Your task to perform on an android device: Go to Yahoo.com Image 0: 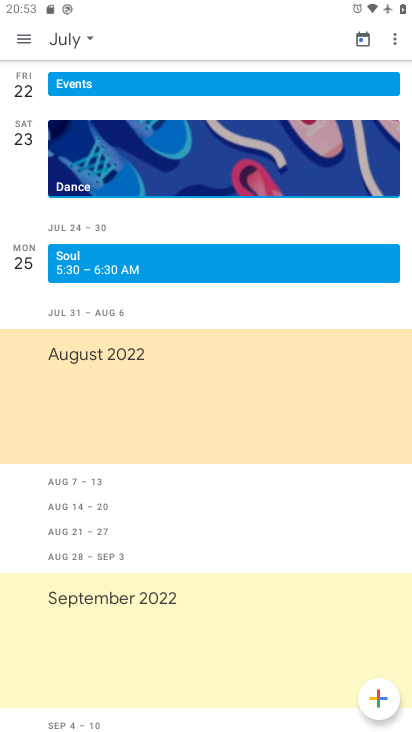
Step 0: press home button
Your task to perform on an android device: Go to Yahoo.com Image 1: 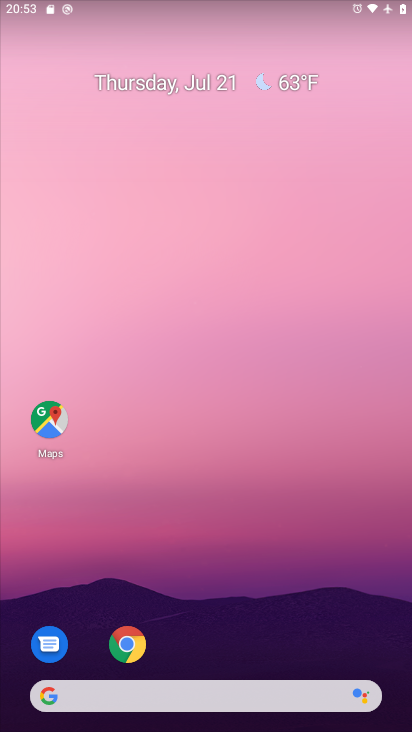
Step 1: click (128, 646)
Your task to perform on an android device: Go to Yahoo.com Image 2: 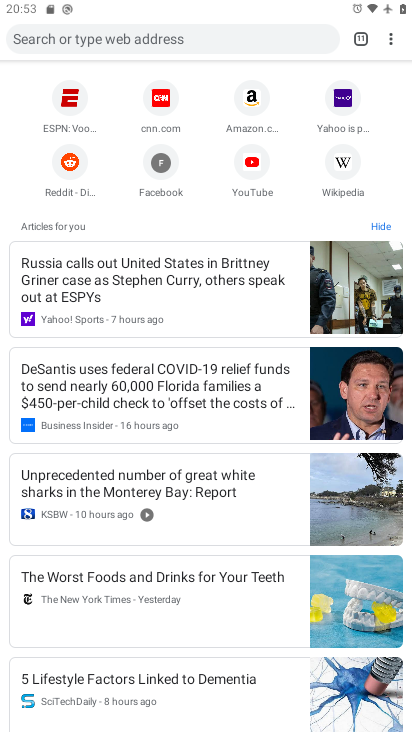
Step 2: click (351, 87)
Your task to perform on an android device: Go to Yahoo.com Image 3: 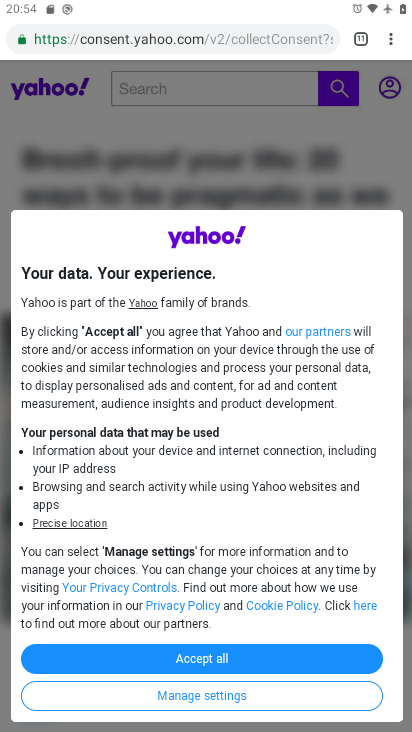
Step 3: task complete